Your task to perform on an android device: Turn off the flashlight Image 0: 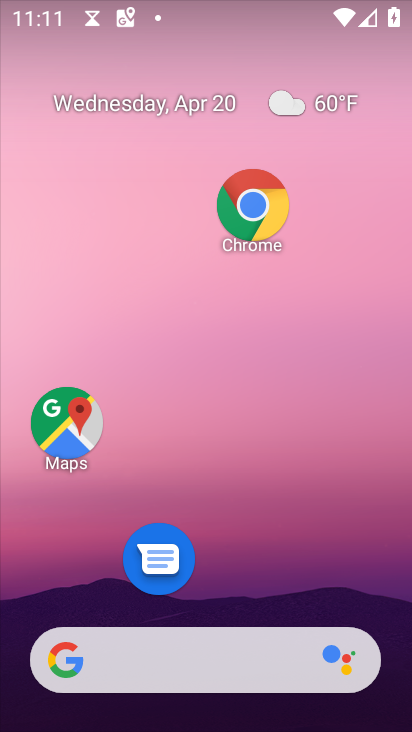
Step 0: drag from (283, 578) to (294, 135)
Your task to perform on an android device: Turn off the flashlight Image 1: 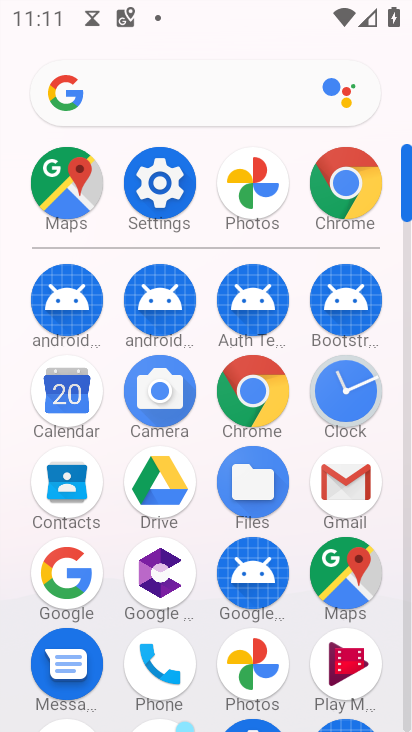
Step 1: drag from (188, 593) to (193, 87)
Your task to perform on an android device: Turn off the flashlight Image 2: 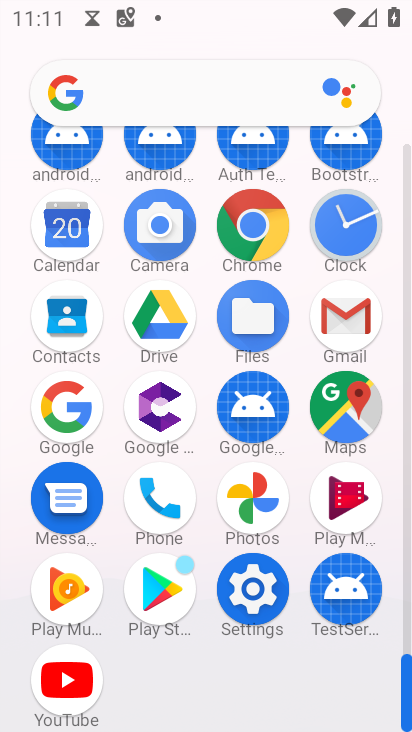
Step 2: click (248, 578)
Your task to perform on an android device: Turn off the flashlight Image 3: 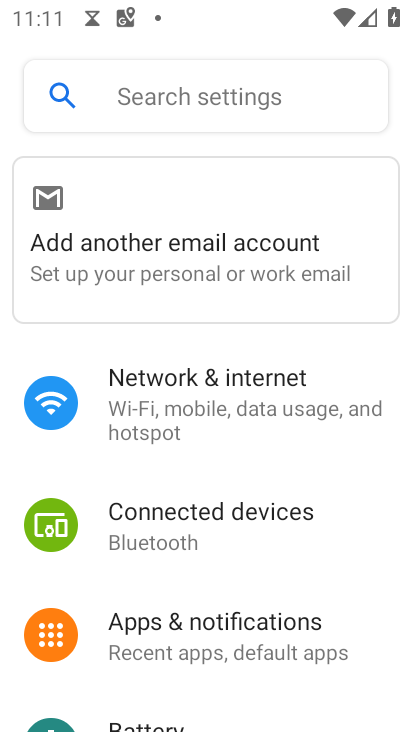
Step 3: task complete